Your task to perform on an android device: Add "alienware aurora" to the cart on bestbuy.com, then select checkout. Image 0: 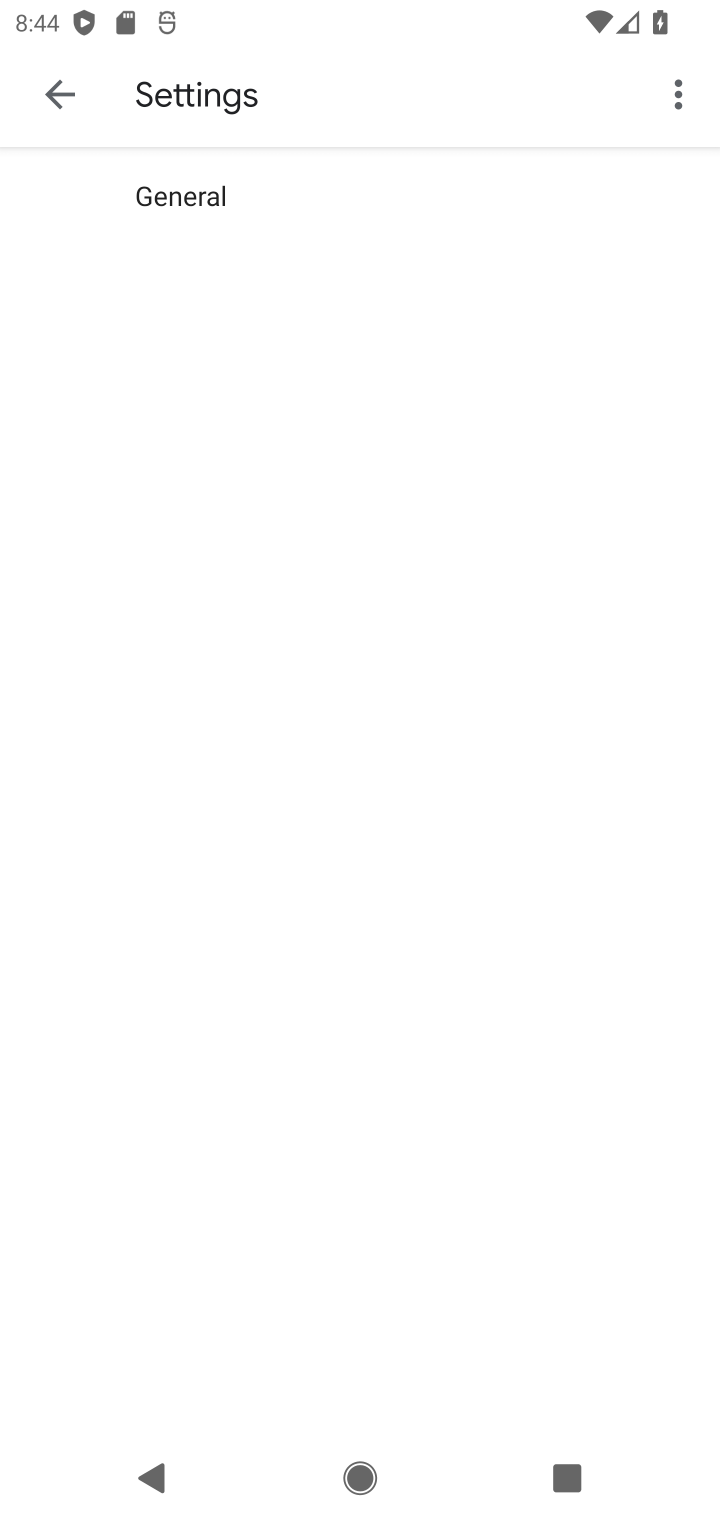
Step 0: press home button
Your task to perform on an android device: Add "alienware aurora" to the cart on bestbuy.com, then select checkout. Image 1: 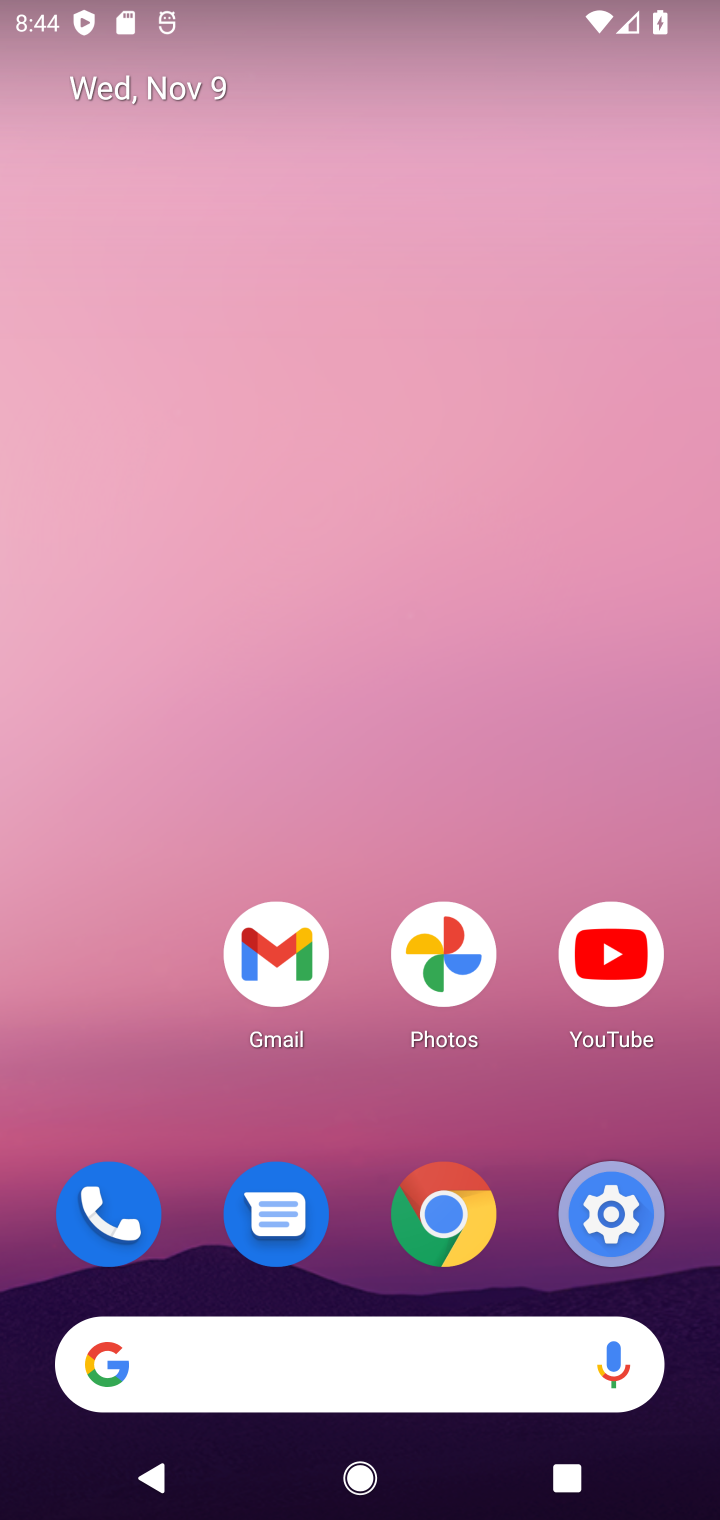
Step 1: drag from (365, 1018) to (445, 16)
Your task to perform on an android device: Add "alienware aurora" to the cart on bestbuy.com, then select checkout. Image 2: 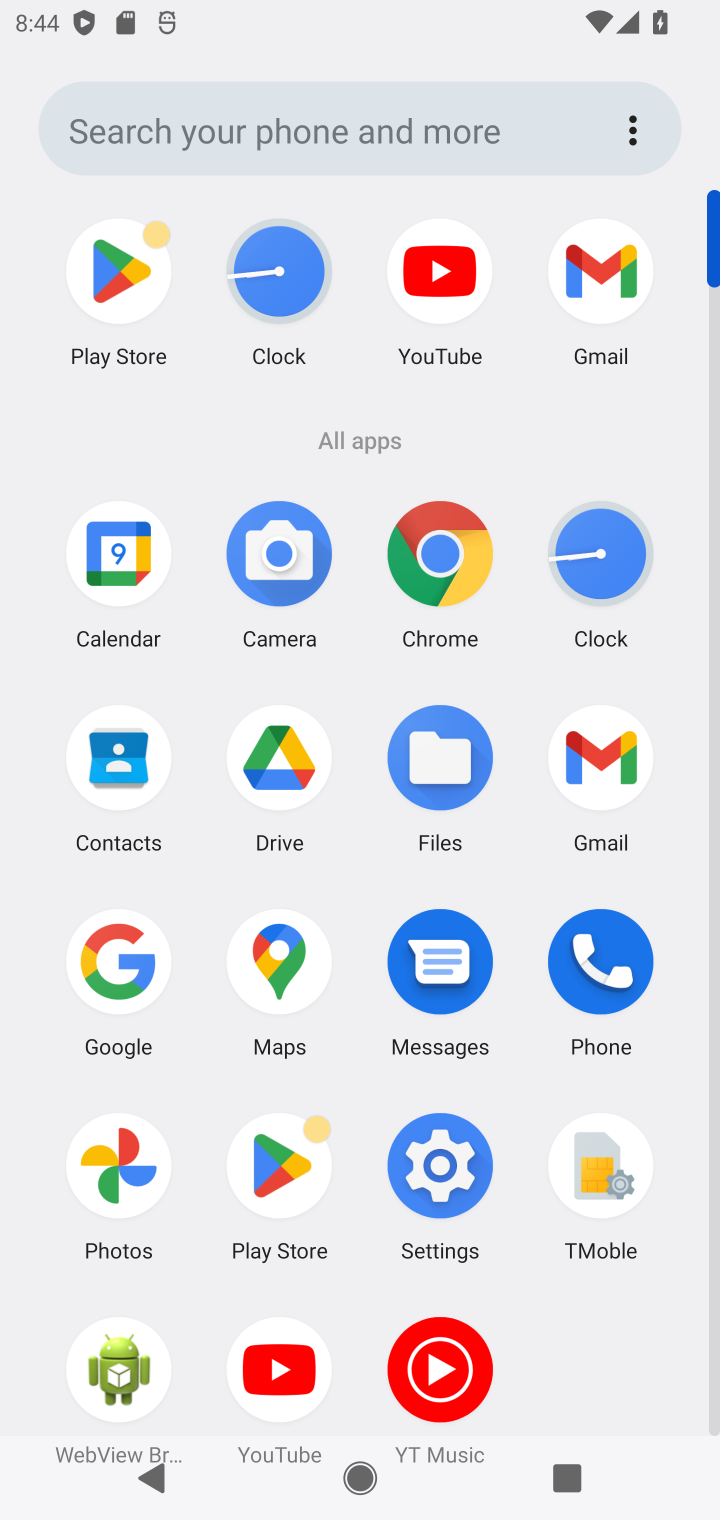
Step 2: click (443, 553)
Your task to perform on an android device: Add "alienware aurora" to the cart on bestbuy.com, then select checkout. Image 3: 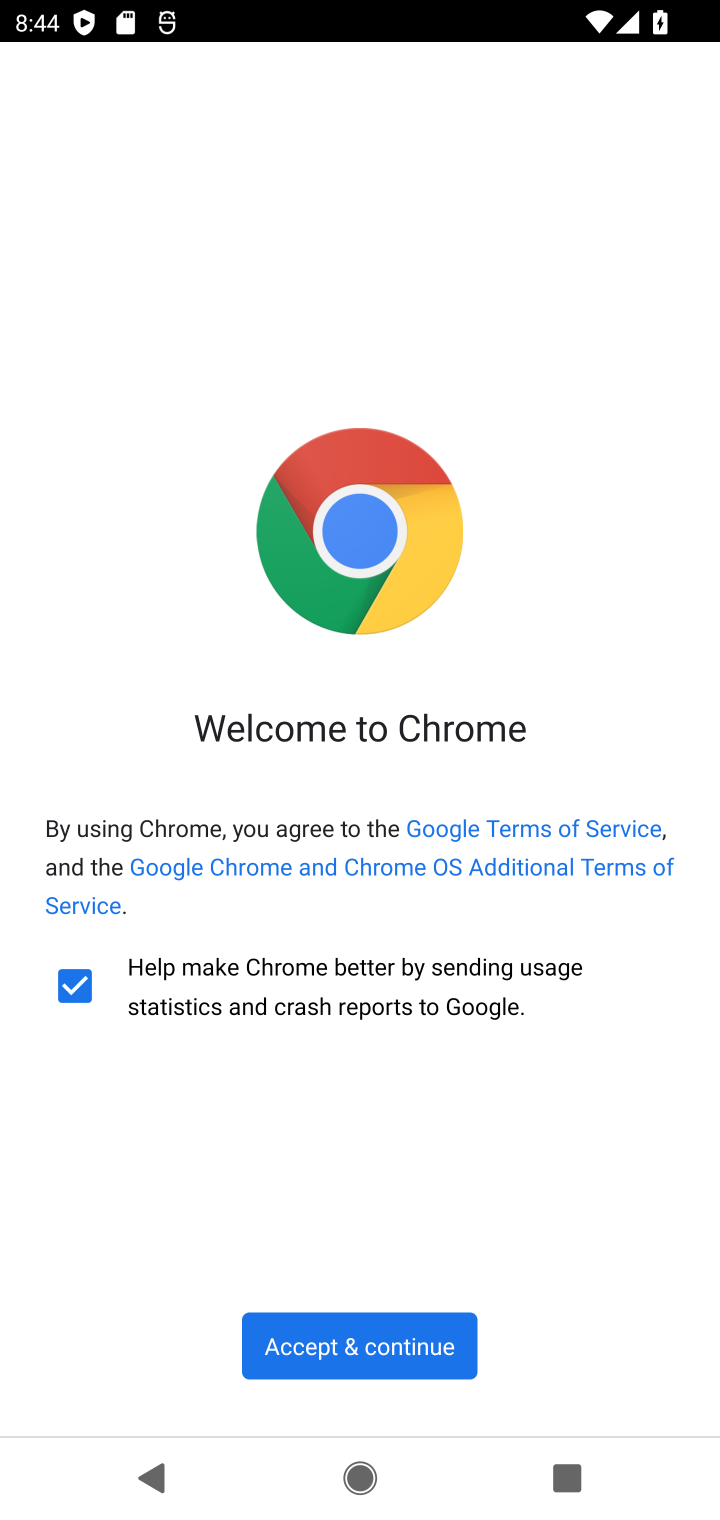
Step 3: click (367, 1368)
Your task to perform on an android device: Add "alienware aurora" to the cart on bestbuy.com, then select checkout. Image 4: 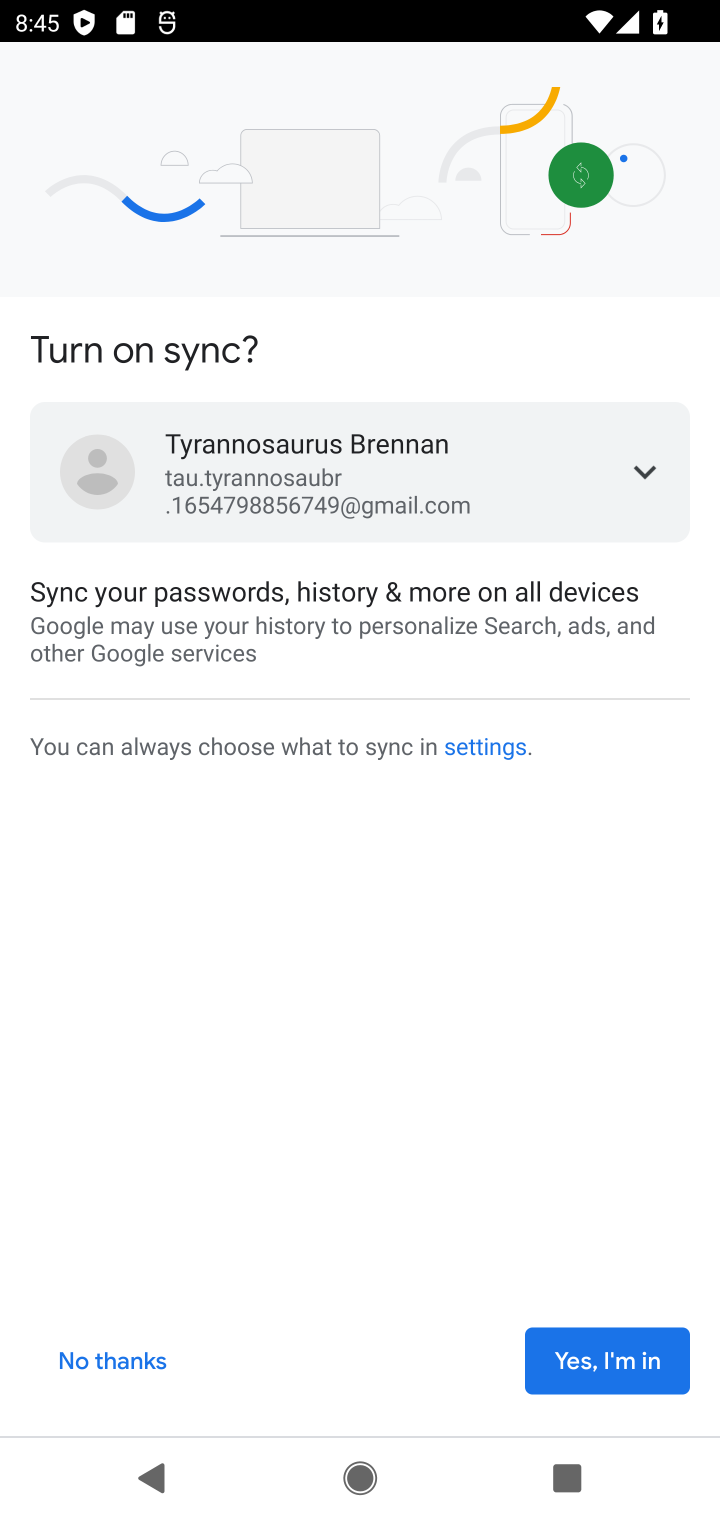
Step 4: click (580, 1391)
Your task to perform on an android device: Add "alienware aurora" to the cart on bestbuy.com, then select checkout. Image 5: 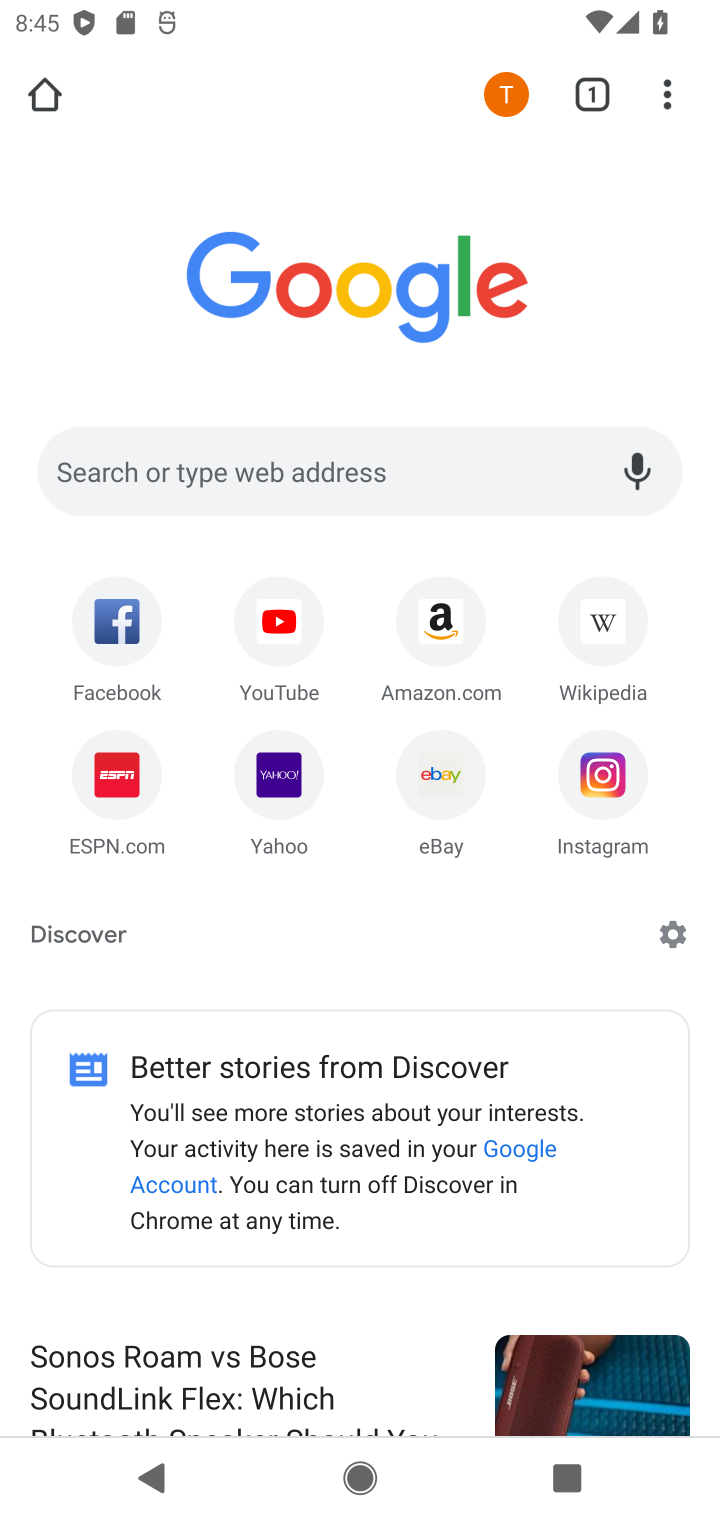
Step 5: click (344, 469)
Your task to perform on an android device: Add "alienware aurora" to the cart on bestbuy.com, then select checkout. Image 6: 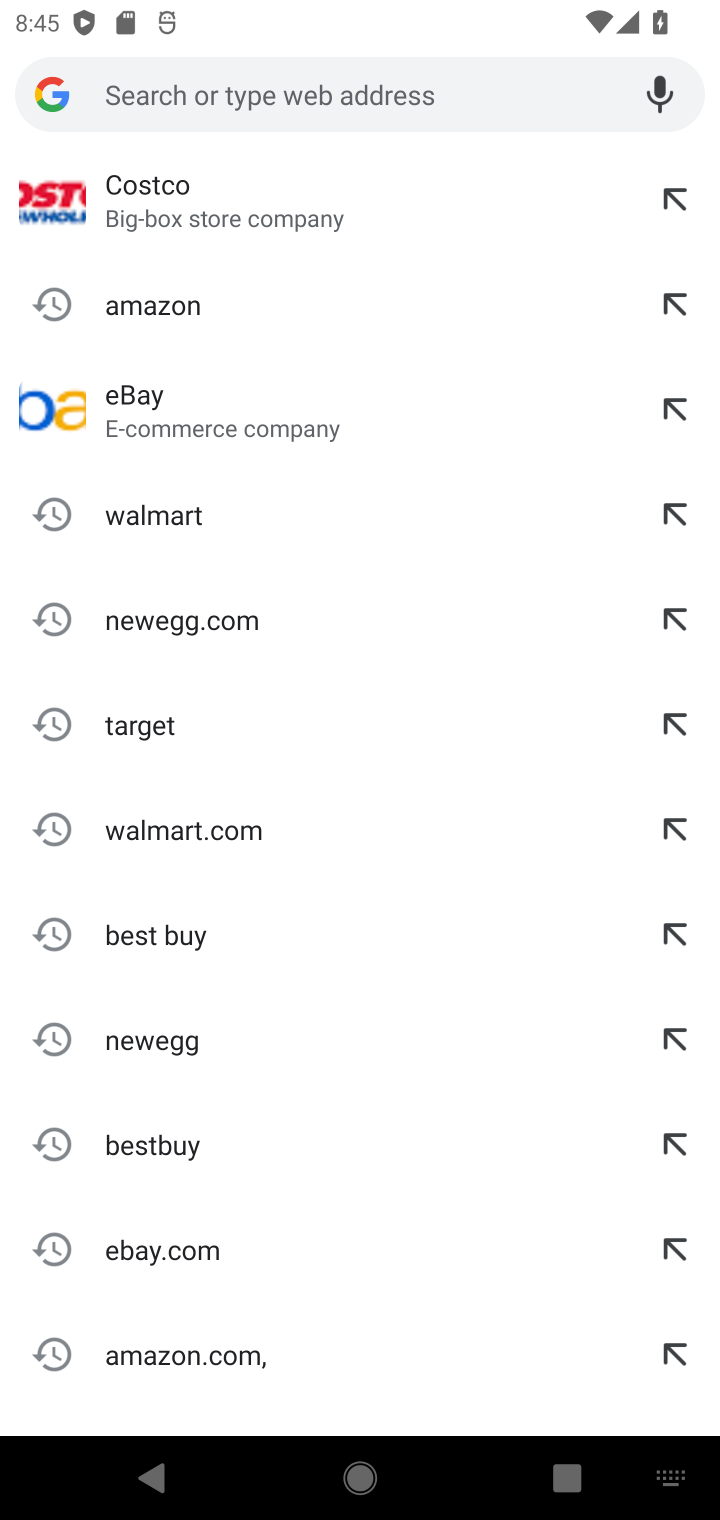
Step 6: type "alienware aurora"
Your task to perform on an android device: Add "alienware aurora" to the cart on bestbuy.com, then select checkout. Image 7: 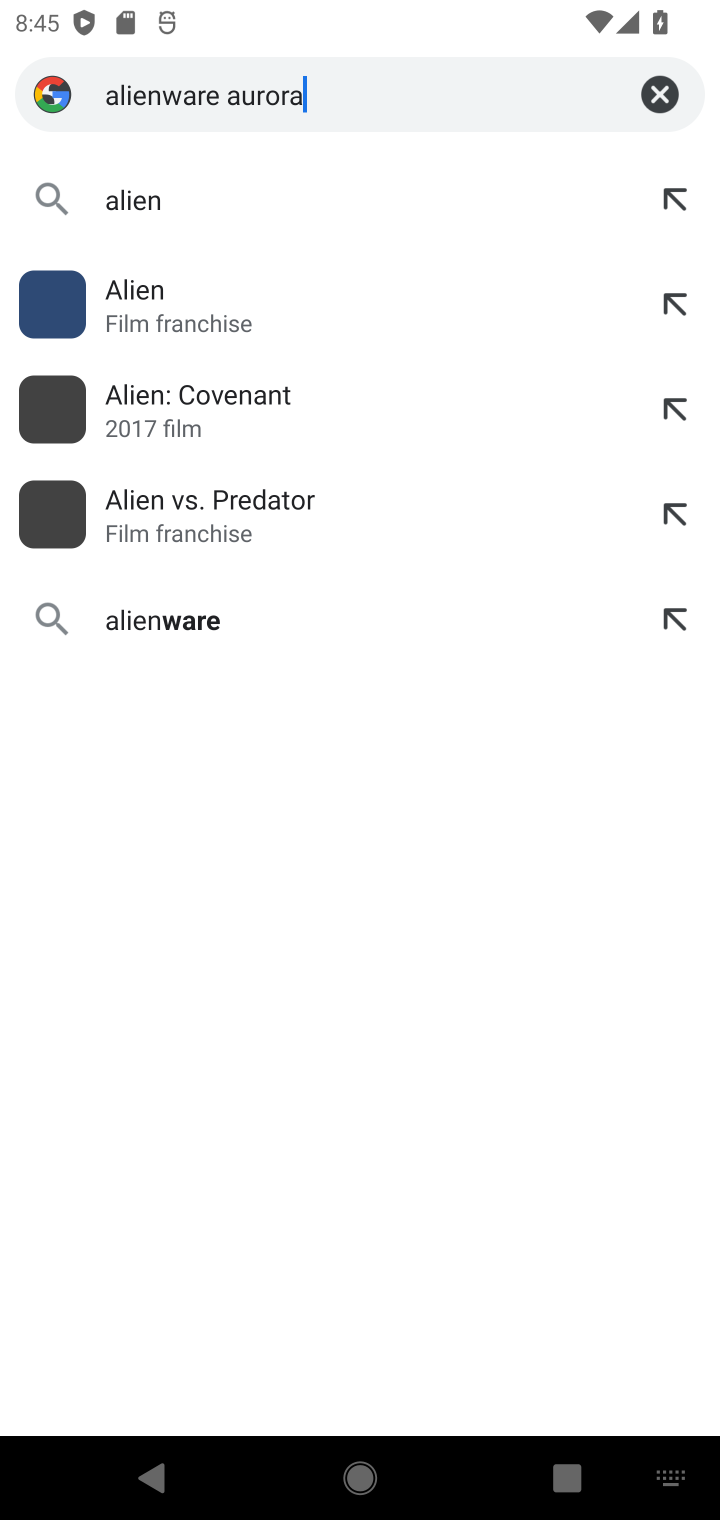
Step 7: press enter
Your task to perform on an android device: Add "alienware aurora" to the cart on bestbuy.com, then select checkout. Image 8: 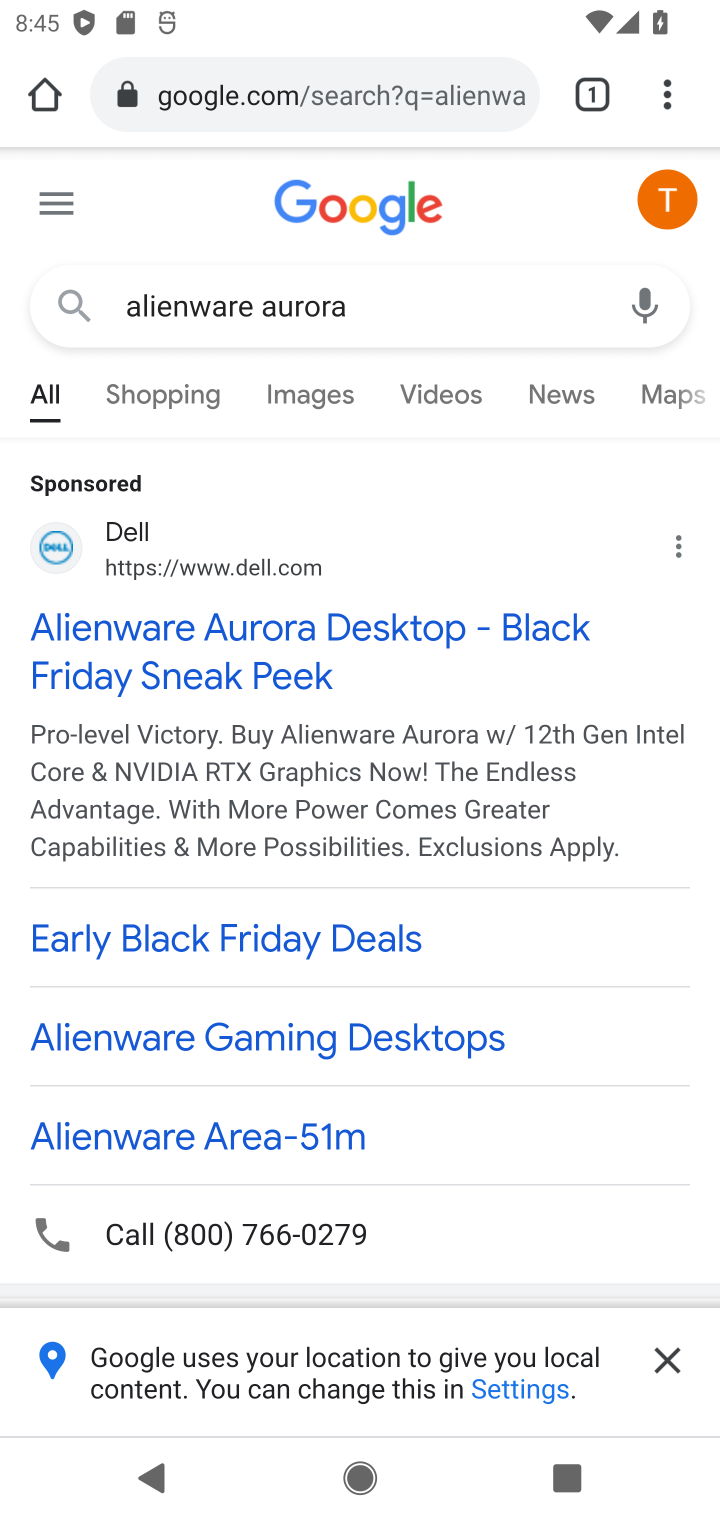
Step 8: drag from (497, 1000) to (454, 227)
Your task to perform on an android device: Add "alienware aurora" to the cart on bestbuy.com, then select checkout. Image 9: 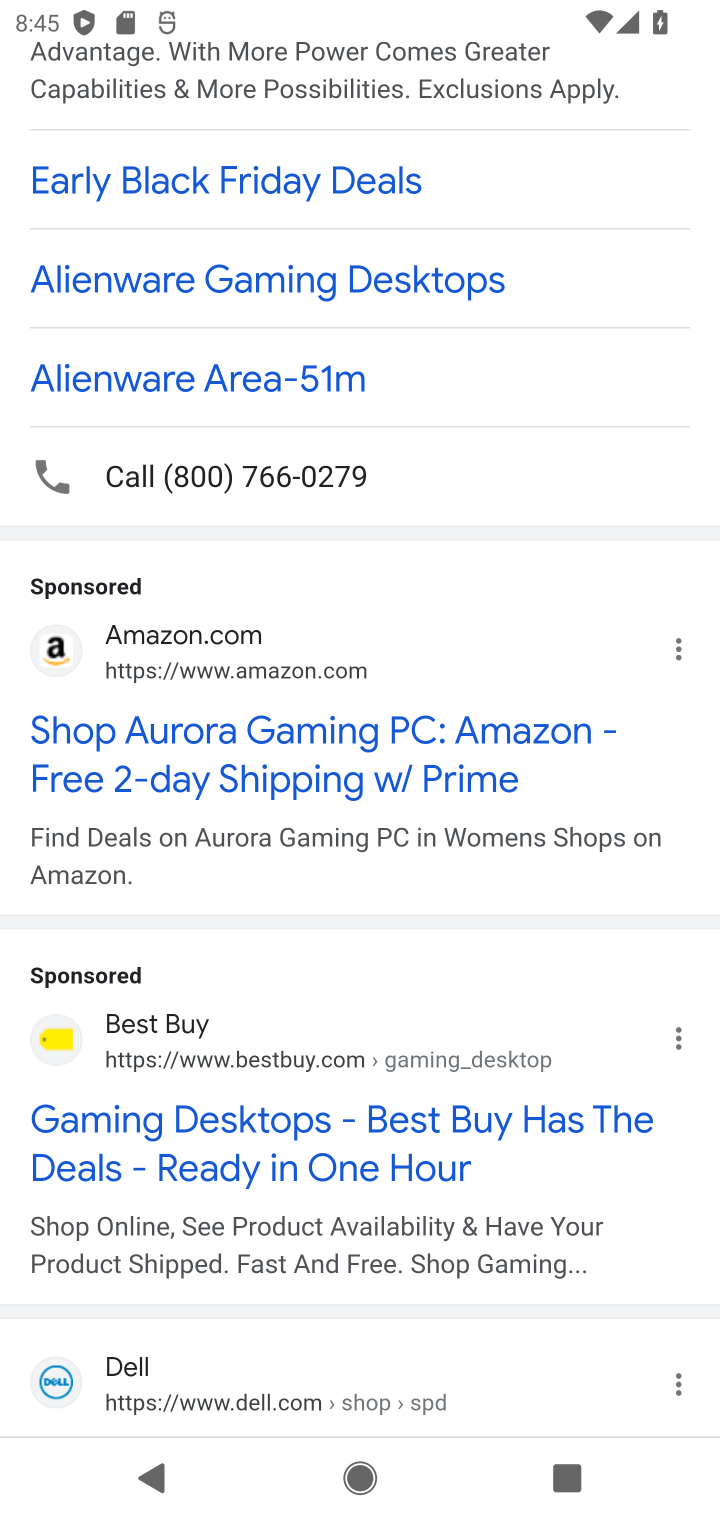
Step 9: drag from (468, 564) to (476, 1100)
Your task to perform on an android device: Add "alienware aurora" to the cart on bestbuy.com, then select checkout. Image 10: 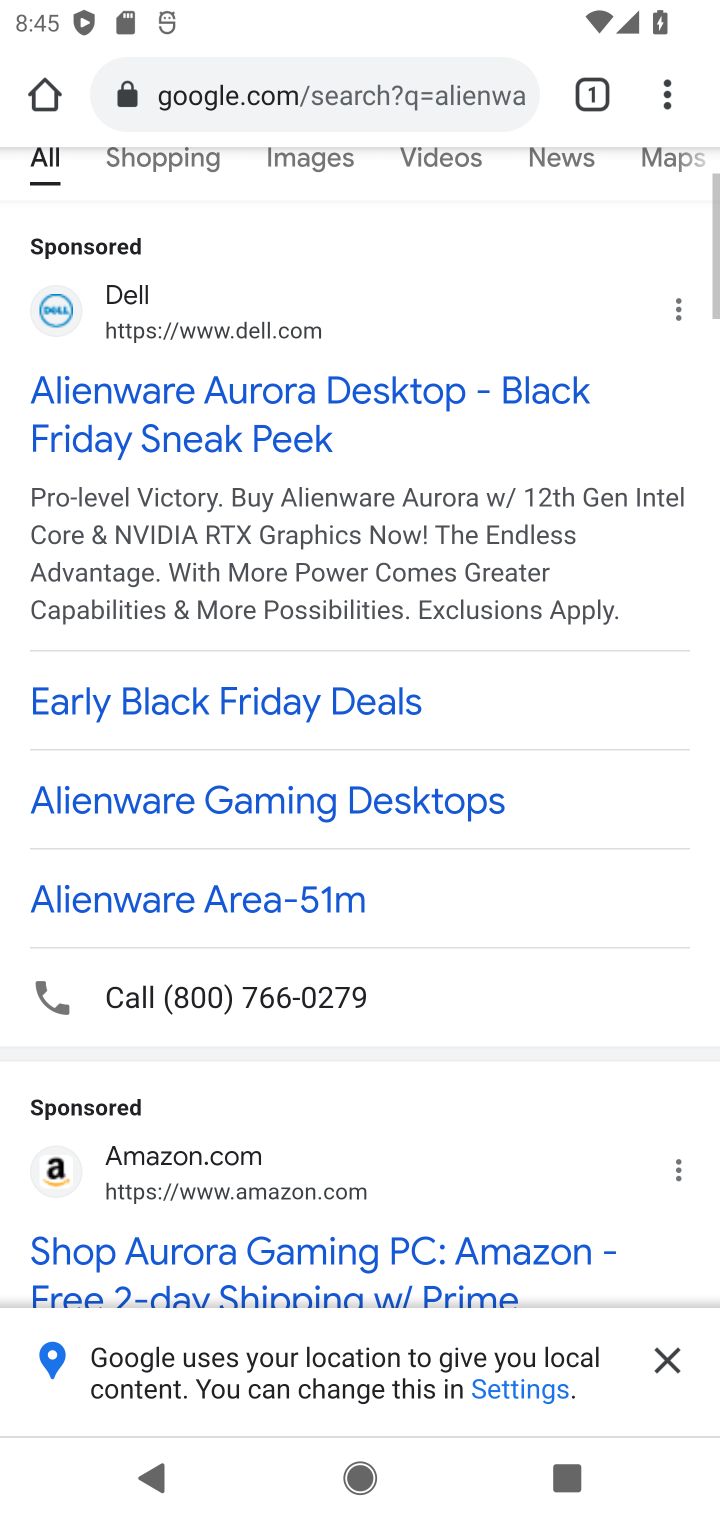
Step 10: click (392, 88)
Your task to perform on an android device: Add "alienware aurora" to the cart on bestbuy.com, then select checkout. Image 11: 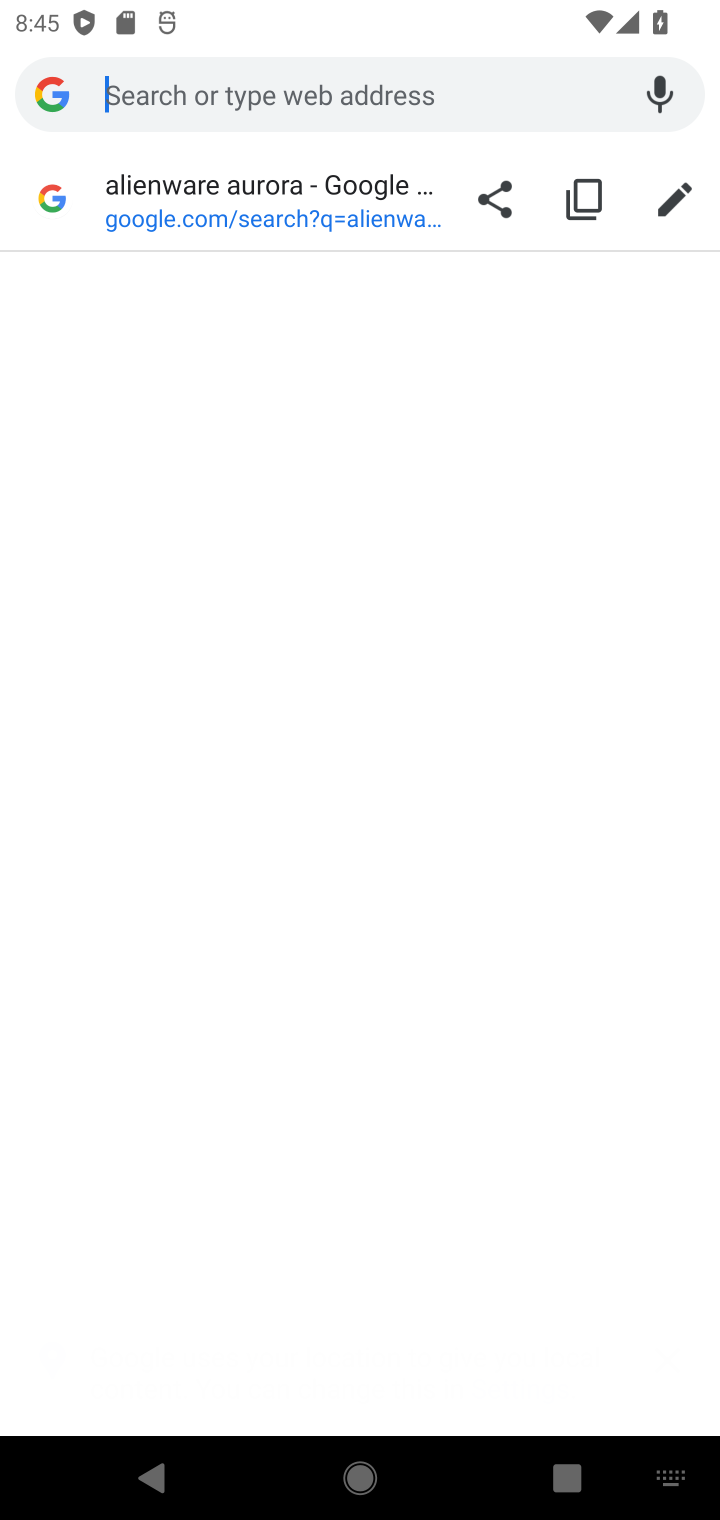
Step 11: type "bestbuy.com"
Your task to perform on an android device: Add "alienware aurora" to the cart on bestbuy.com, then select checkout. Image 12: 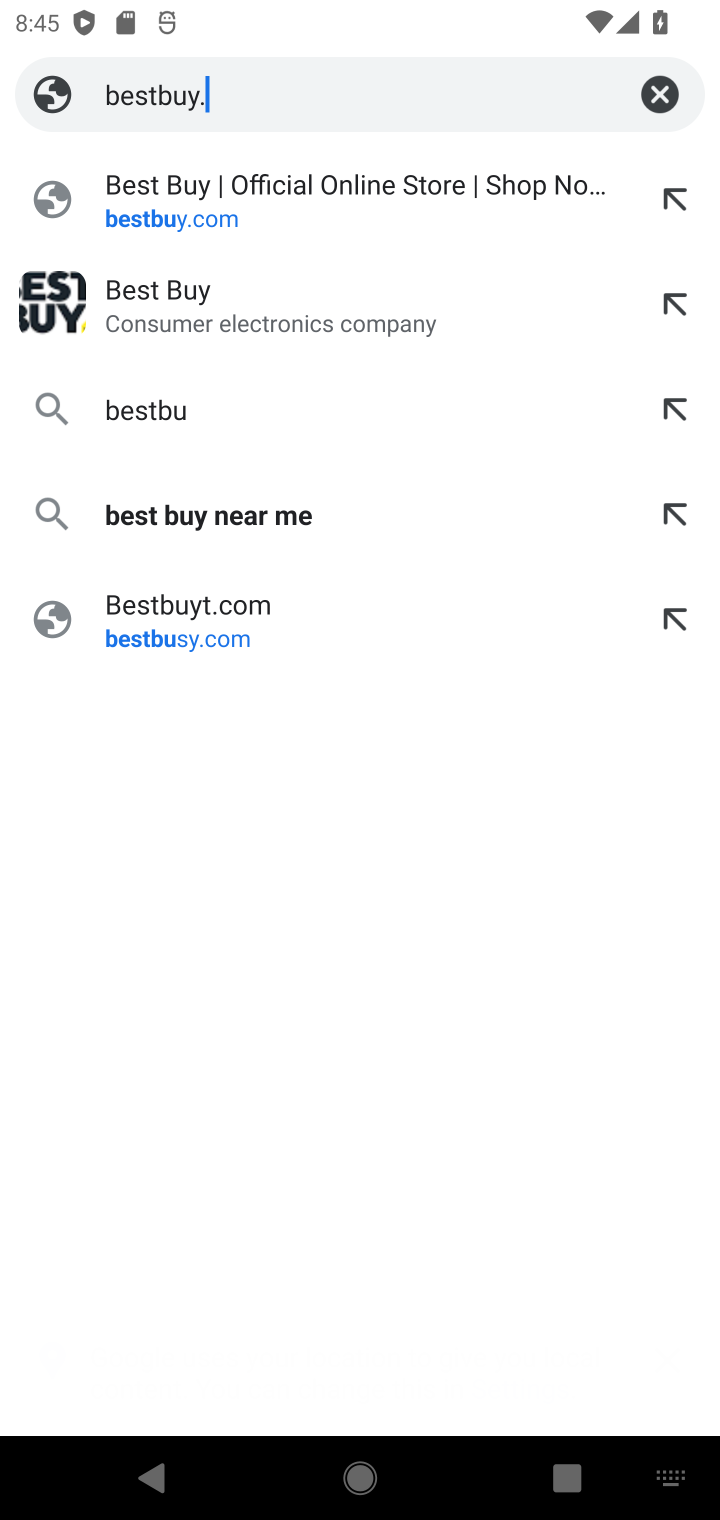
Step 12: press enter
Your task to perform on an android device: Add "alienware aurora" to the cart on bestbuy.com, then select checkout. Image 13: 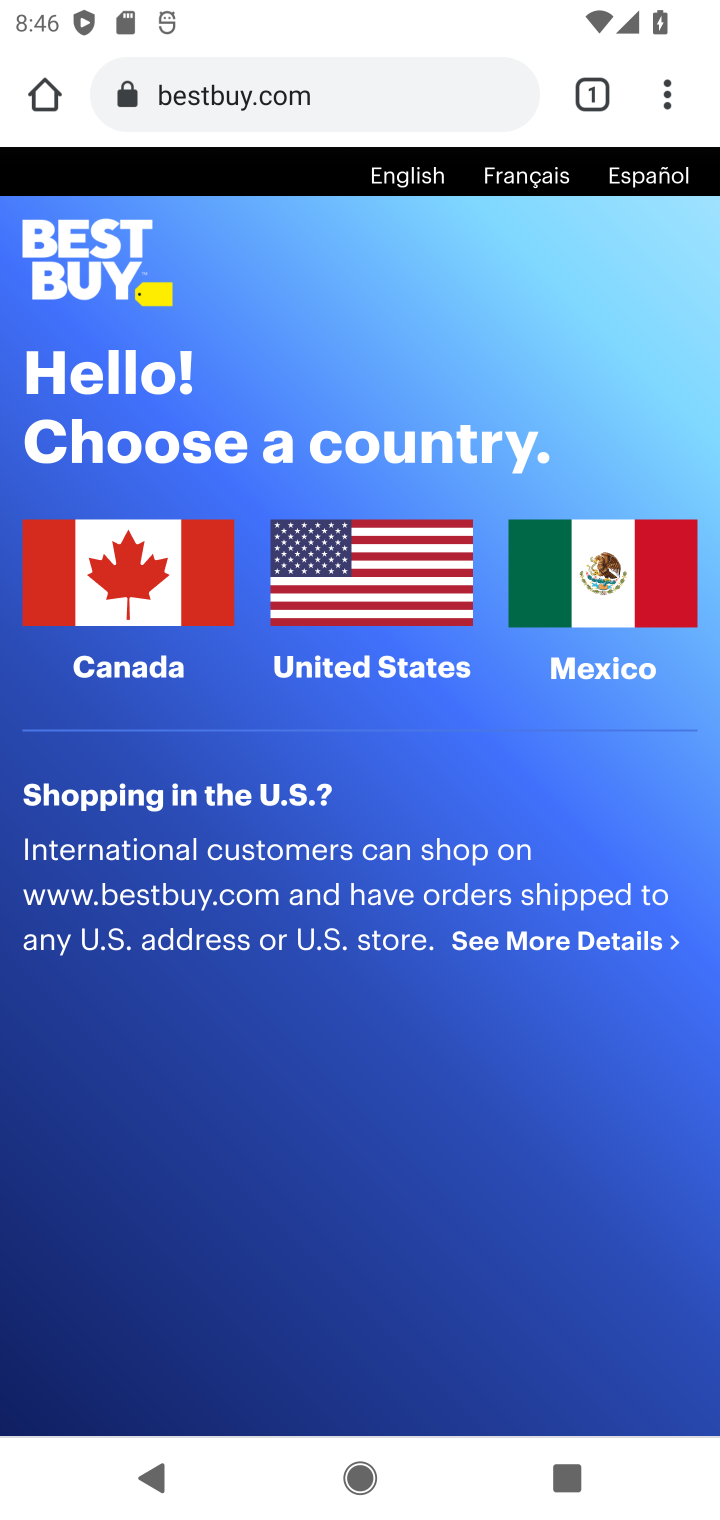
Step 13: click (166, 556)
Your task to perform on an android device: Add "alienware aurora" to the cart on bestbuy.com, then select checkout. Image 14: 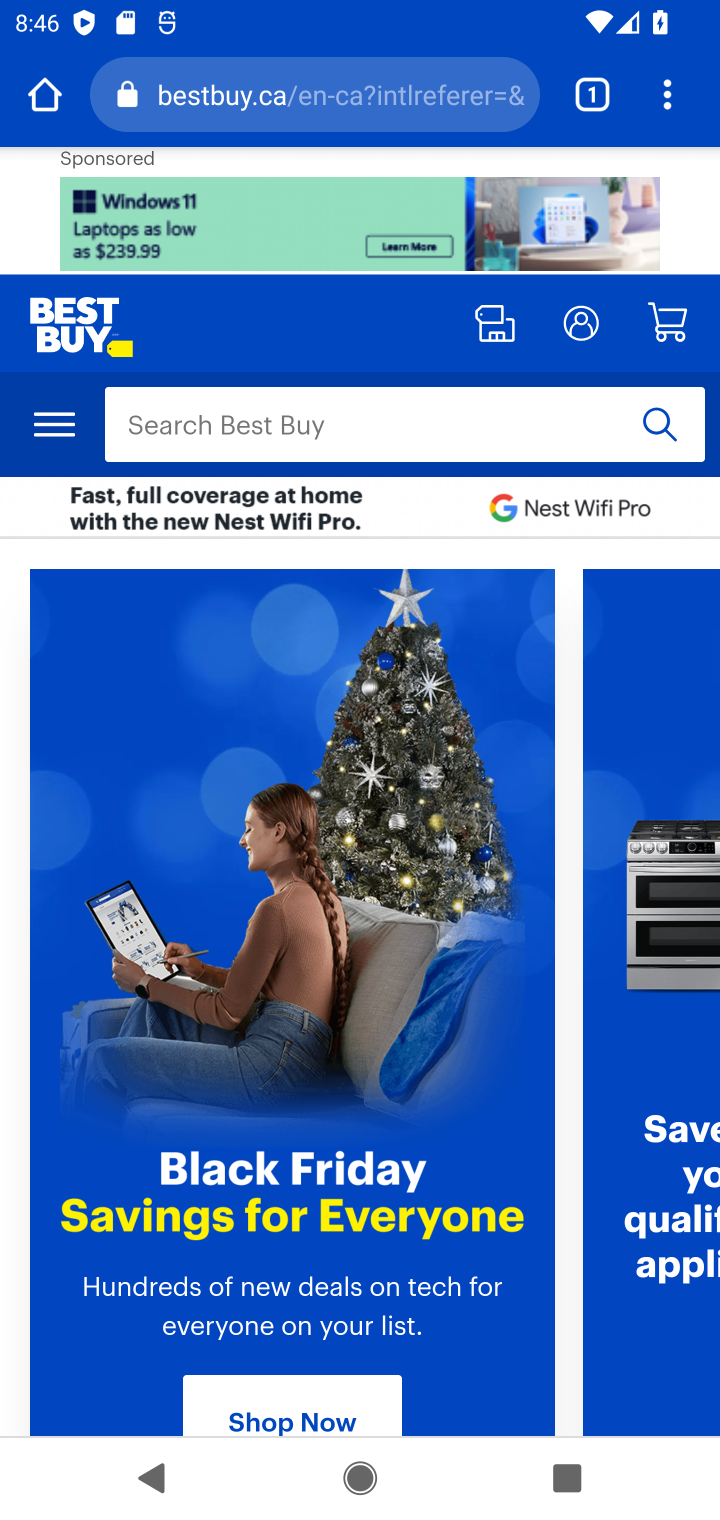
Step 14: click (541, 404)
Your task to perform on an android device: Add "alienware aurora" to the cart on bestbuy.com, then select checkout. Image 15: 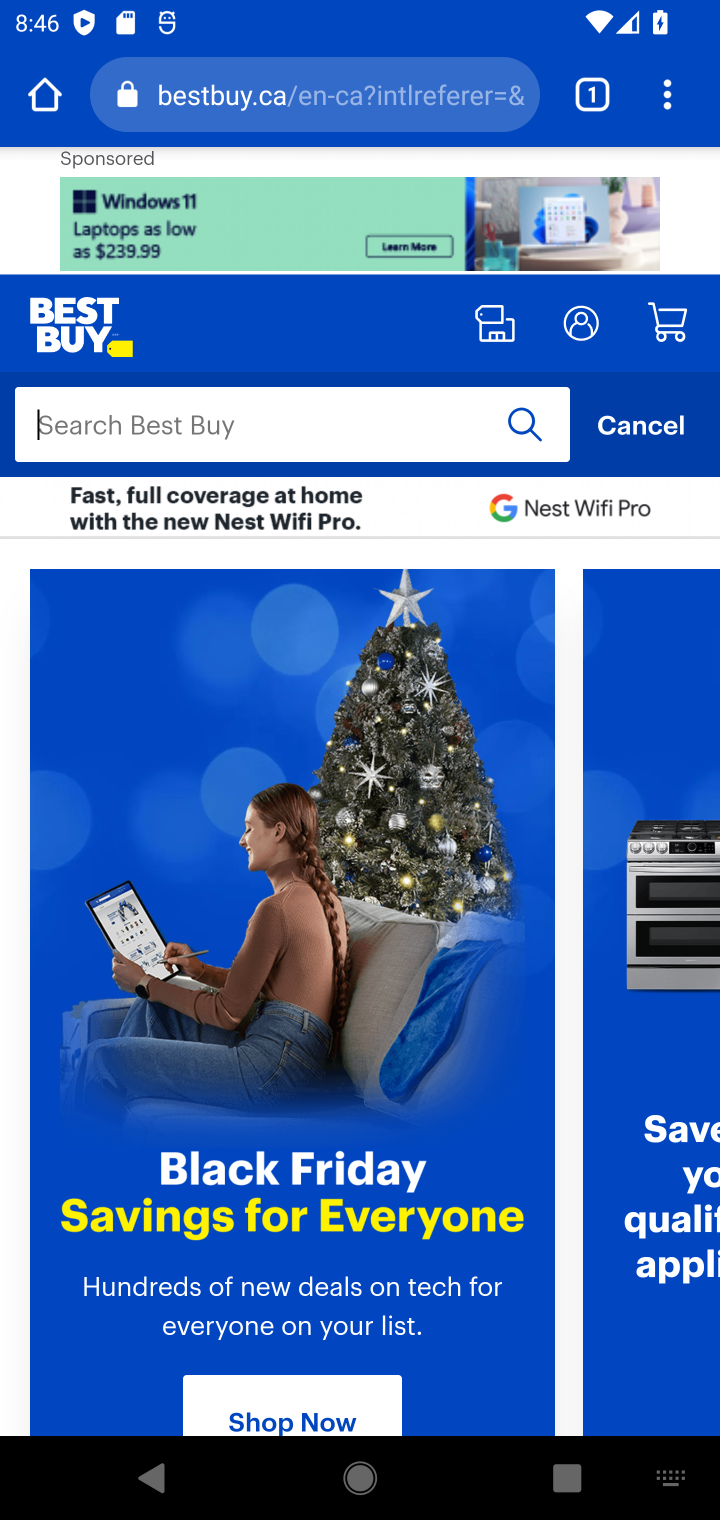
Step 15: type "alienware aurora"
Your task to perform on an android device: Add "alienware aurora" to the cart on bestbuy.com, then select checkout. Image 16: 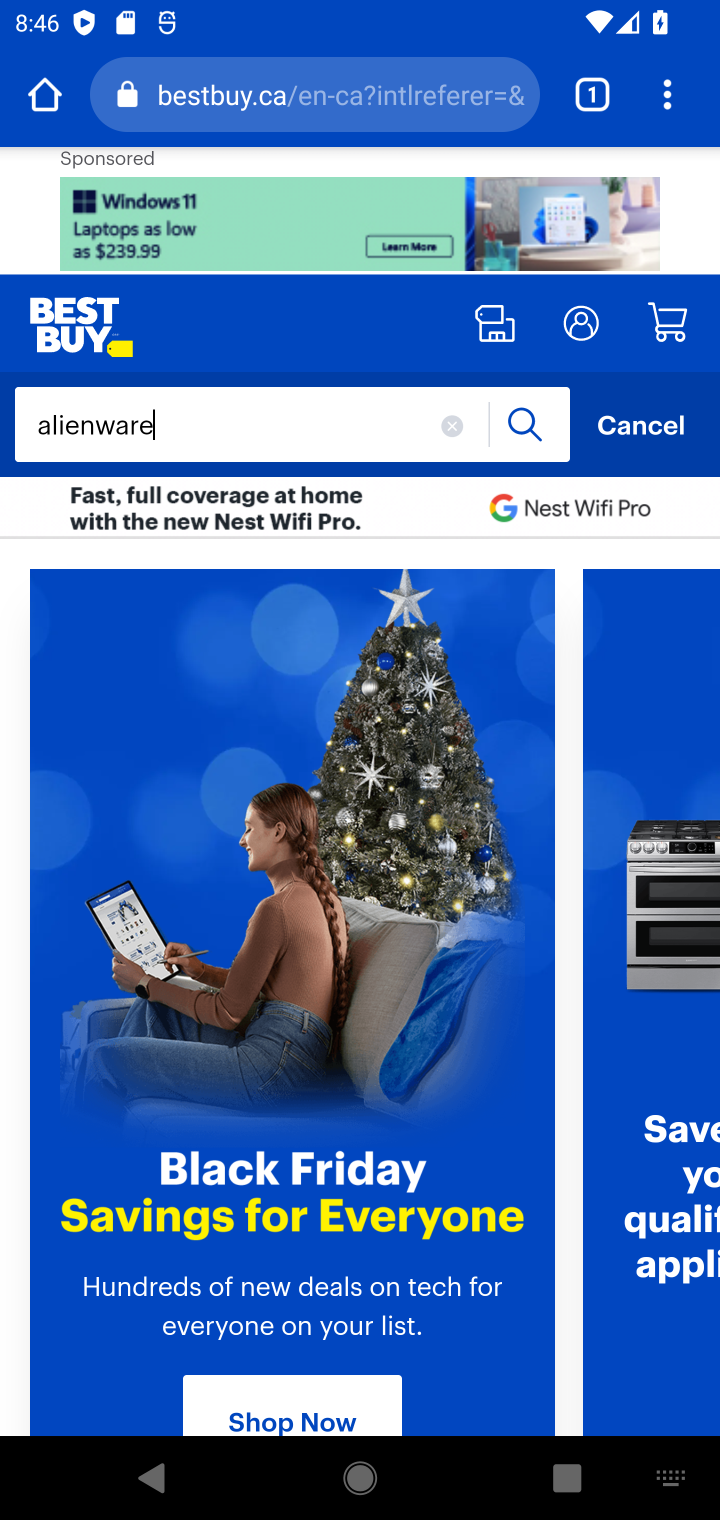
Step 16: press enter
Your task to perform on an android device: Add "alienware aurora" to the cart on bestbuy.com, then select checkout. Image 17: 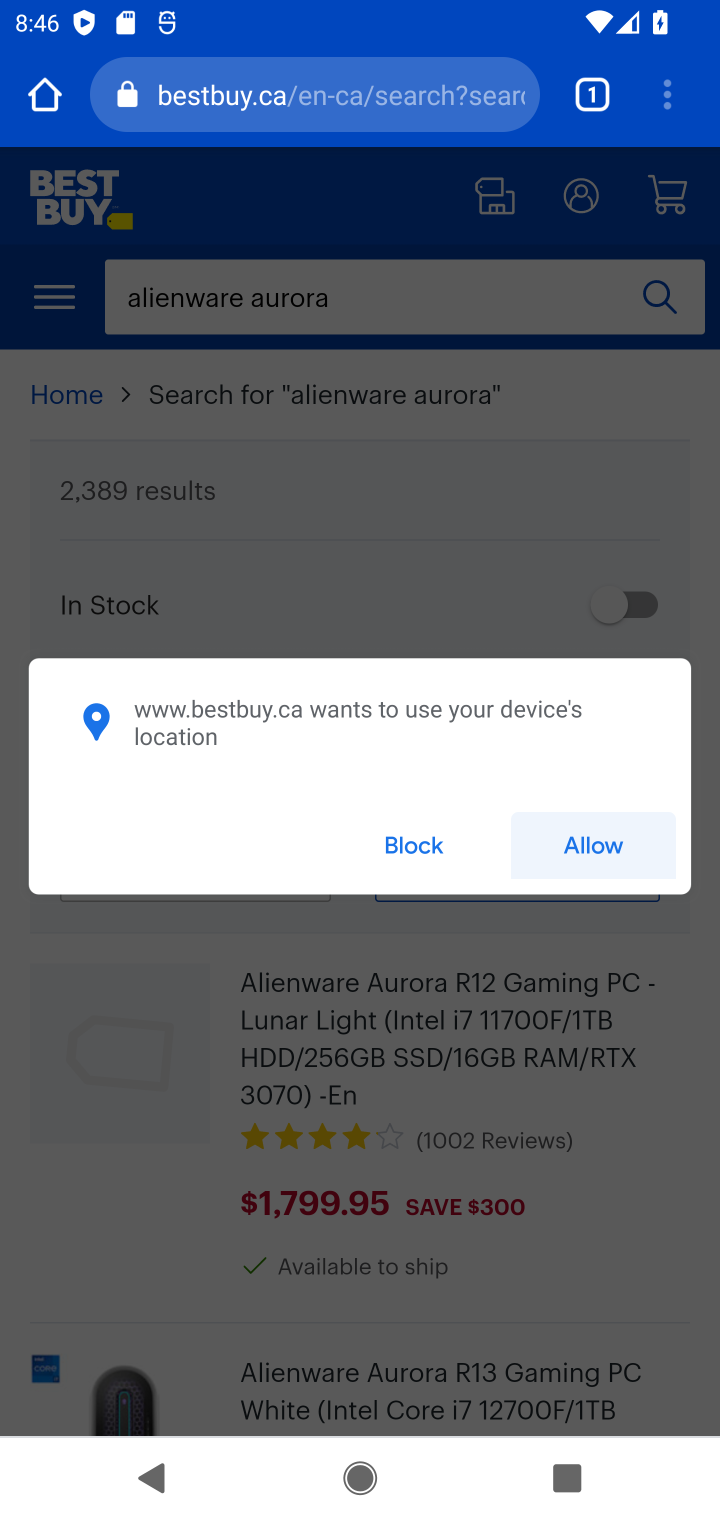
Step 17: click (423, 850)
Your task to perform on an android device: Add "alienware aurora" to the cart on bestbuy.com, then select checkout. Image 18: 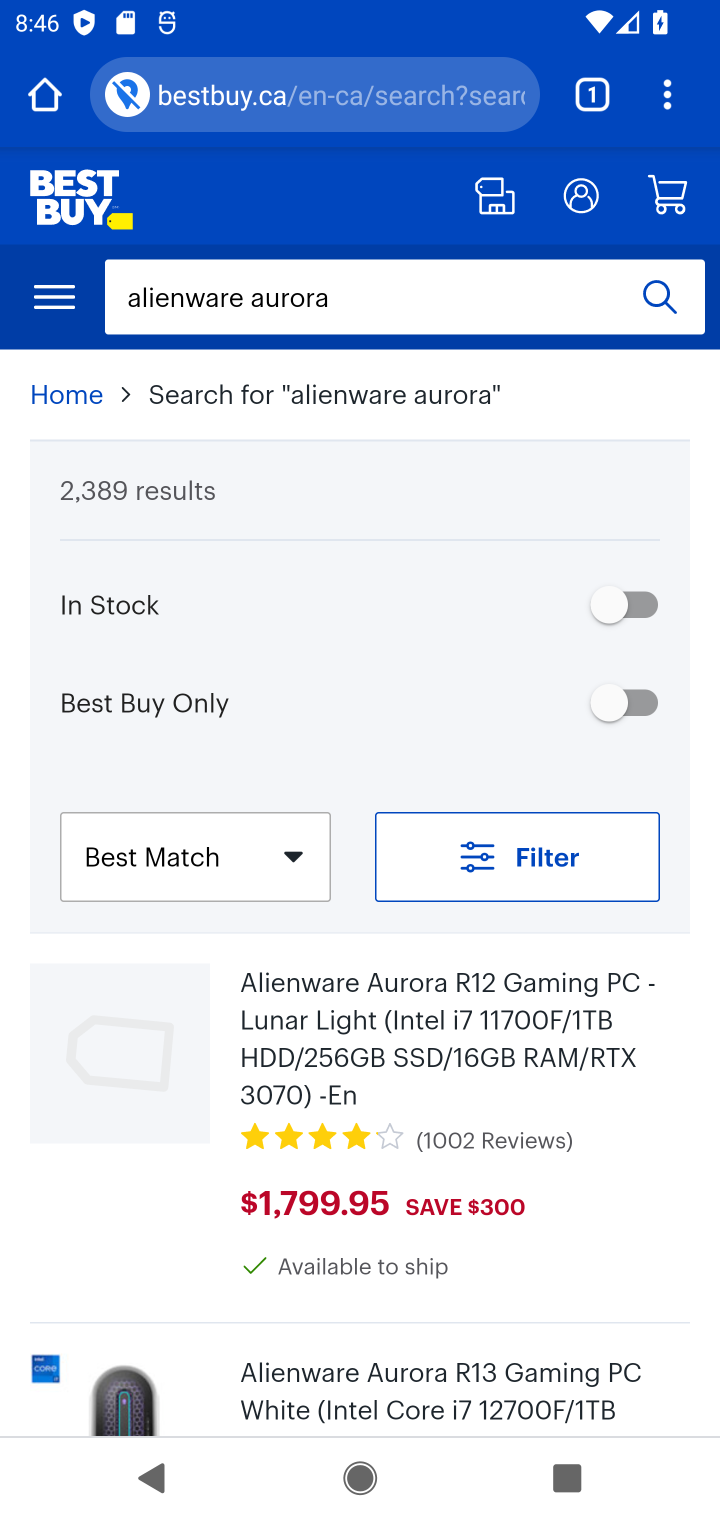
Step 18: drag from (456, 958) to (478, 612)
Your task to perform on an android device: Add "alienware aurora" to the cart on bestbuy.com, then select checkout. Image 19: 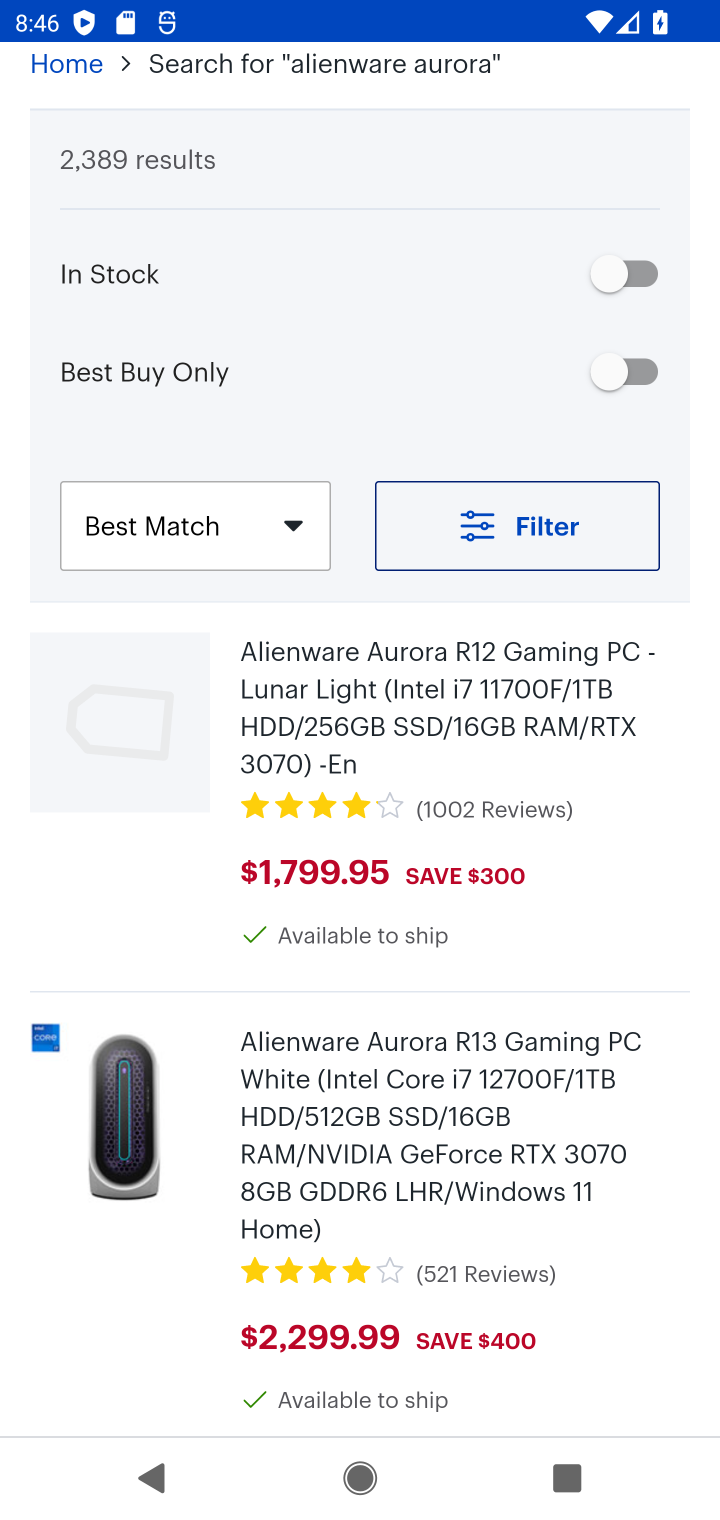
Step 19: click (388, 671)
Your task to perform on an android device: Add "alienware aurora" to the cart on bestbuy.com, then select checkout. Image 20: 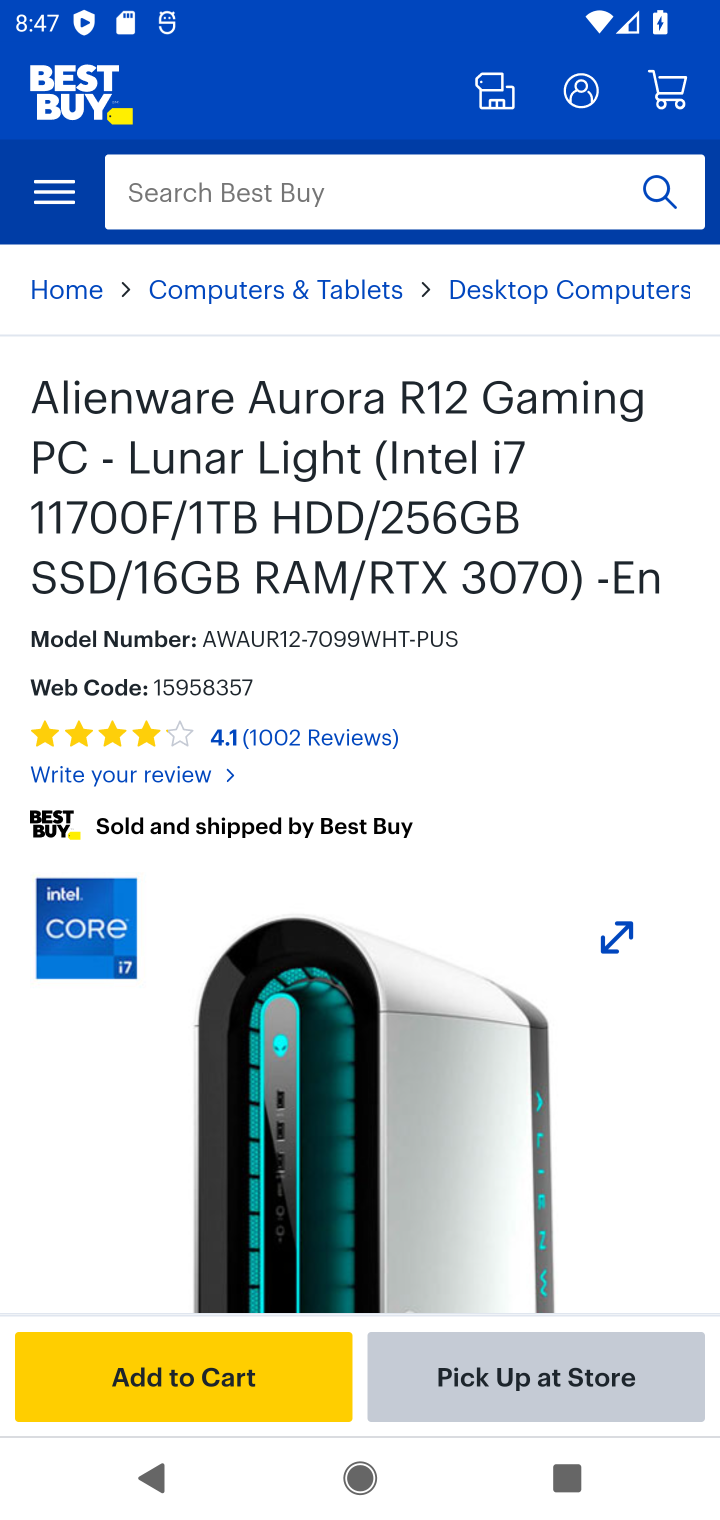
Step 20: click (257, 1384)
Your task to perform on an android device: Add "alienware aurora" to the cart on bestbuy.com, then select checkout. Image 21: 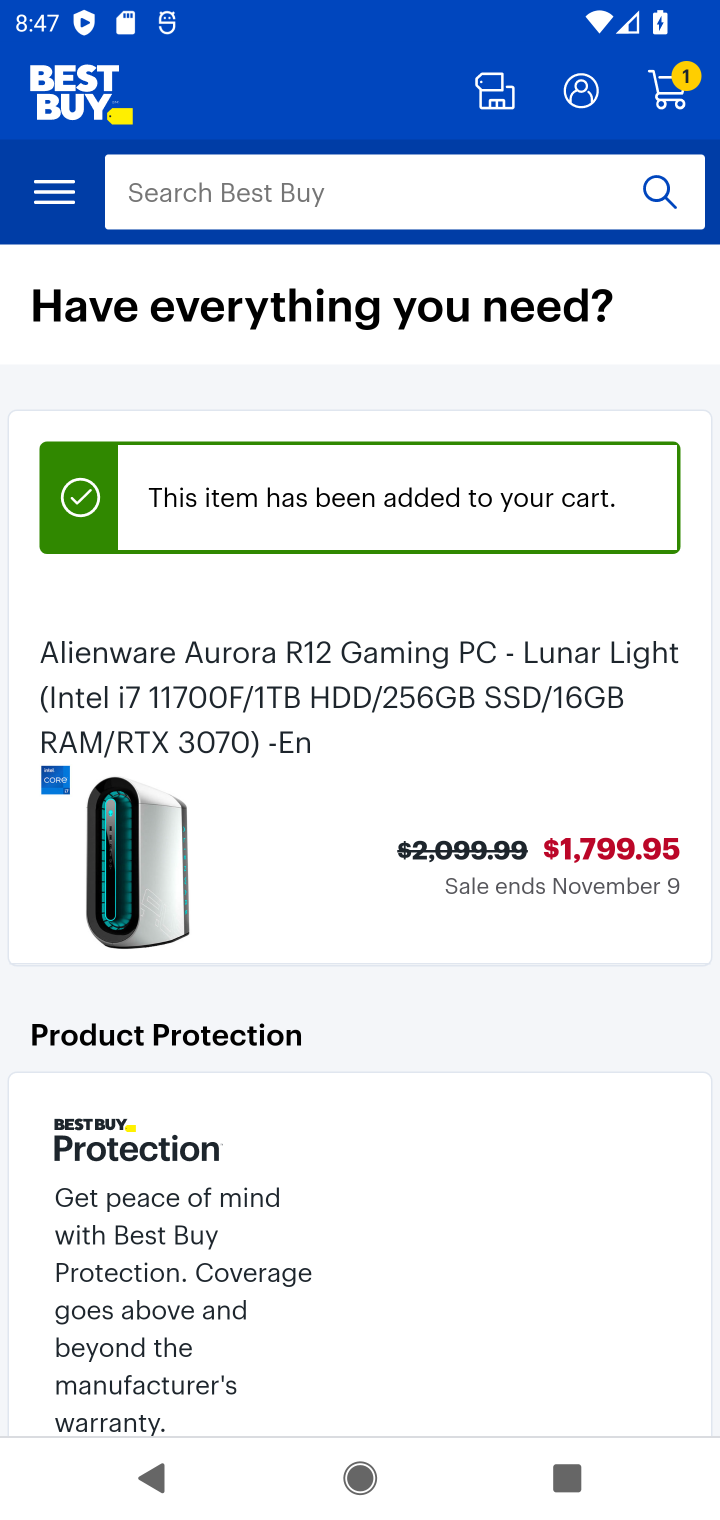
Step 21: click (698, 99)
Your task to perform on an android device: Add "alienware aurora" to the cart on bestbuy.com, then select checkout. Image 22: 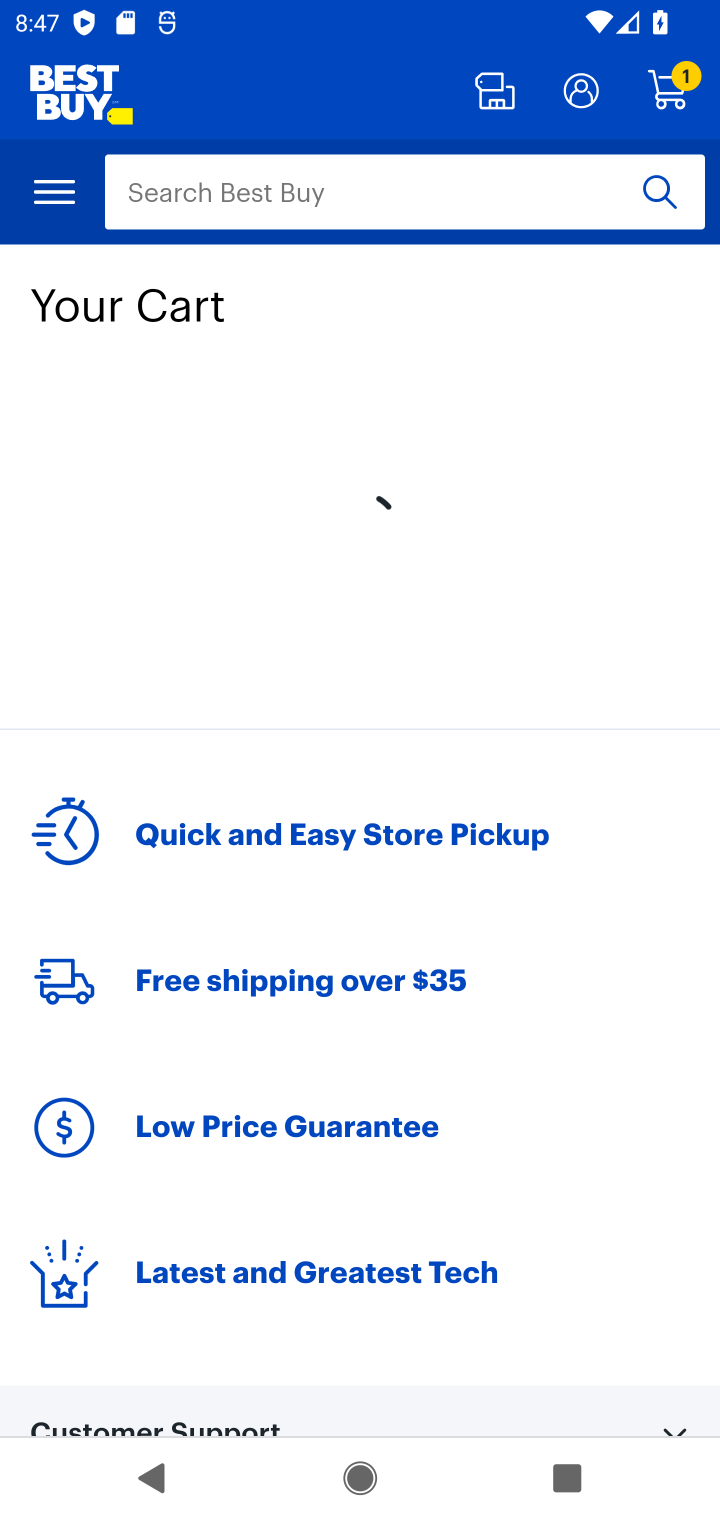
Step 22: click (679, 93)
Your task to perform on an android device: Add "alienware aurora" to the cart on bestbuy.com, then select checkout. Image 23: 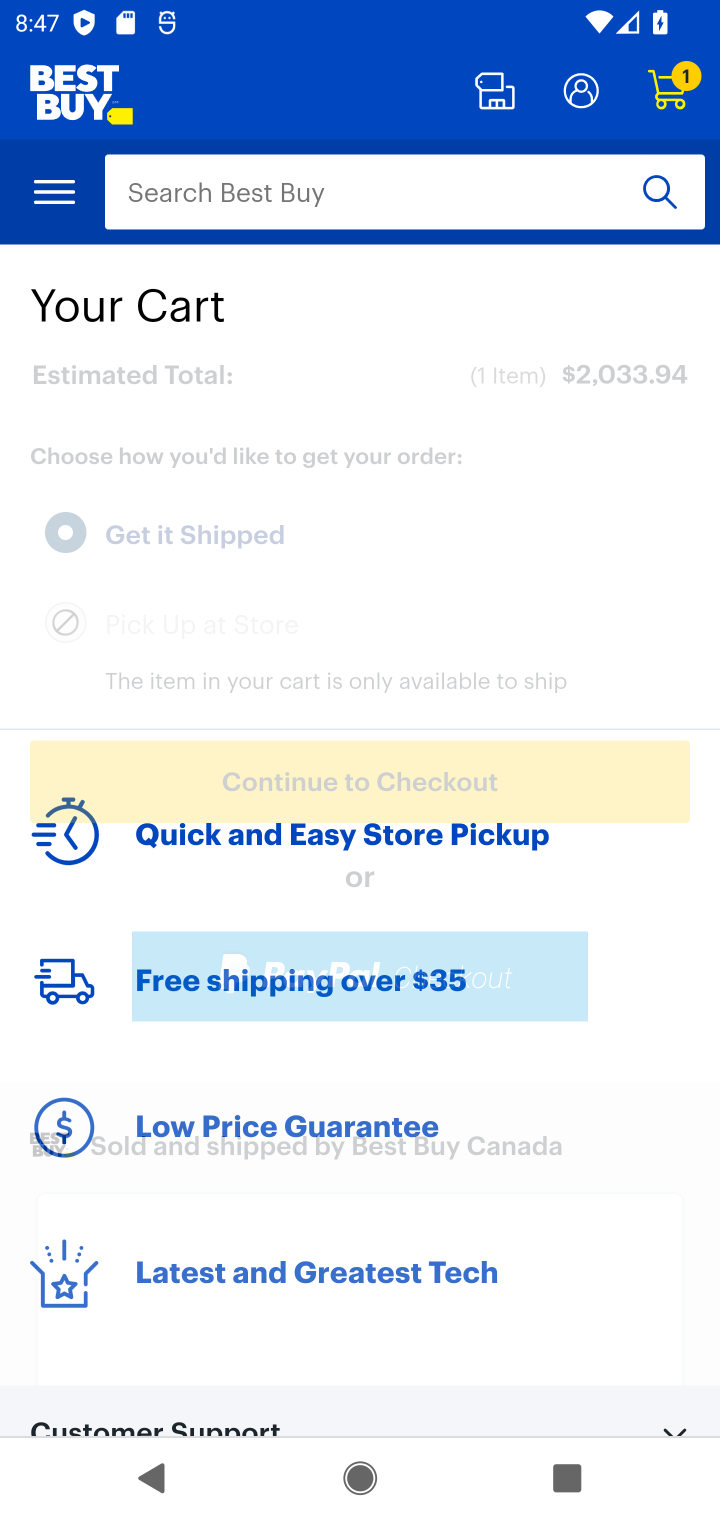
Step 23: click (675, 81)
Your task to perform on an android device: Add "alienware aurora" to the cart on bestbuy.com, then select checkout. Image 24: 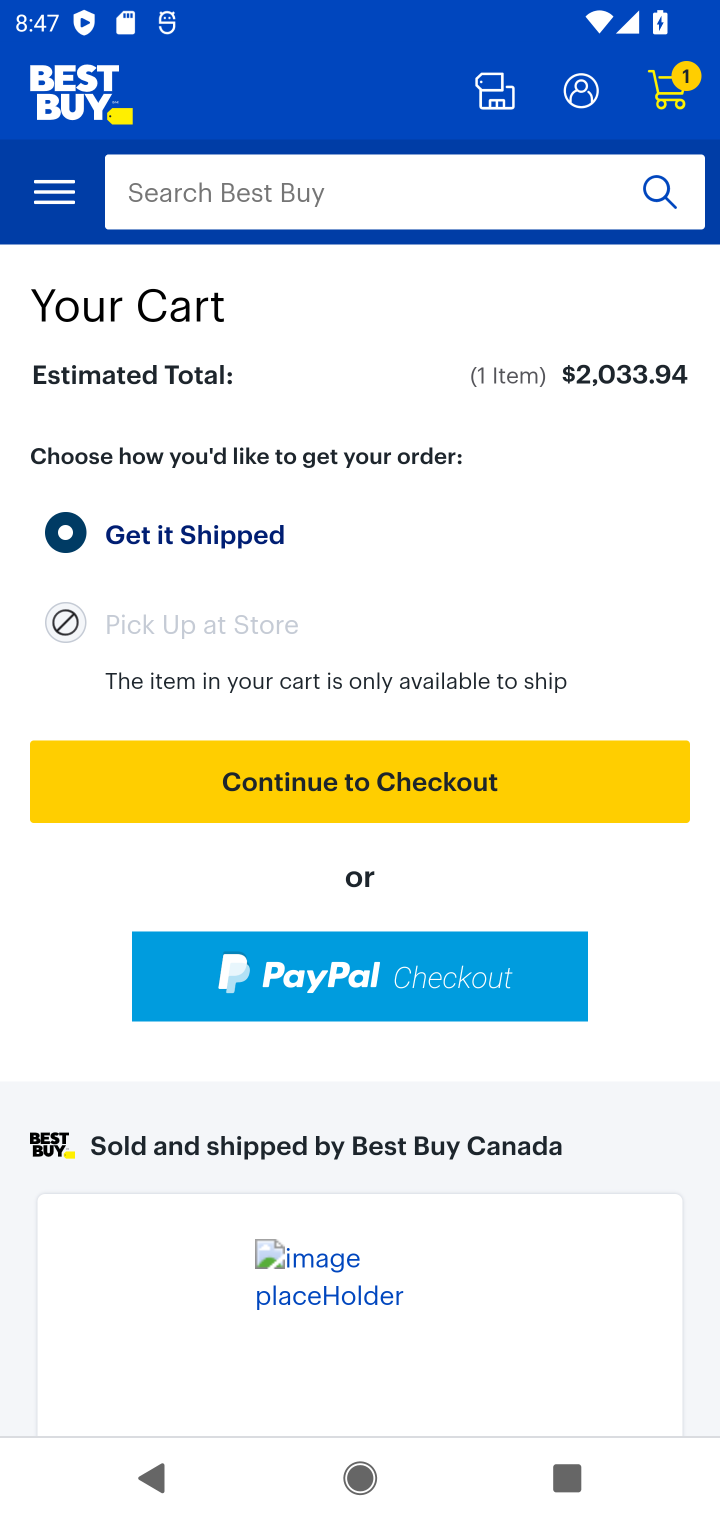
Step 24: click (437, 798)
Your task to perform on an android device: Add "alienware aurora" to the cart on bestbuy.com, then select checkout. Image 25: 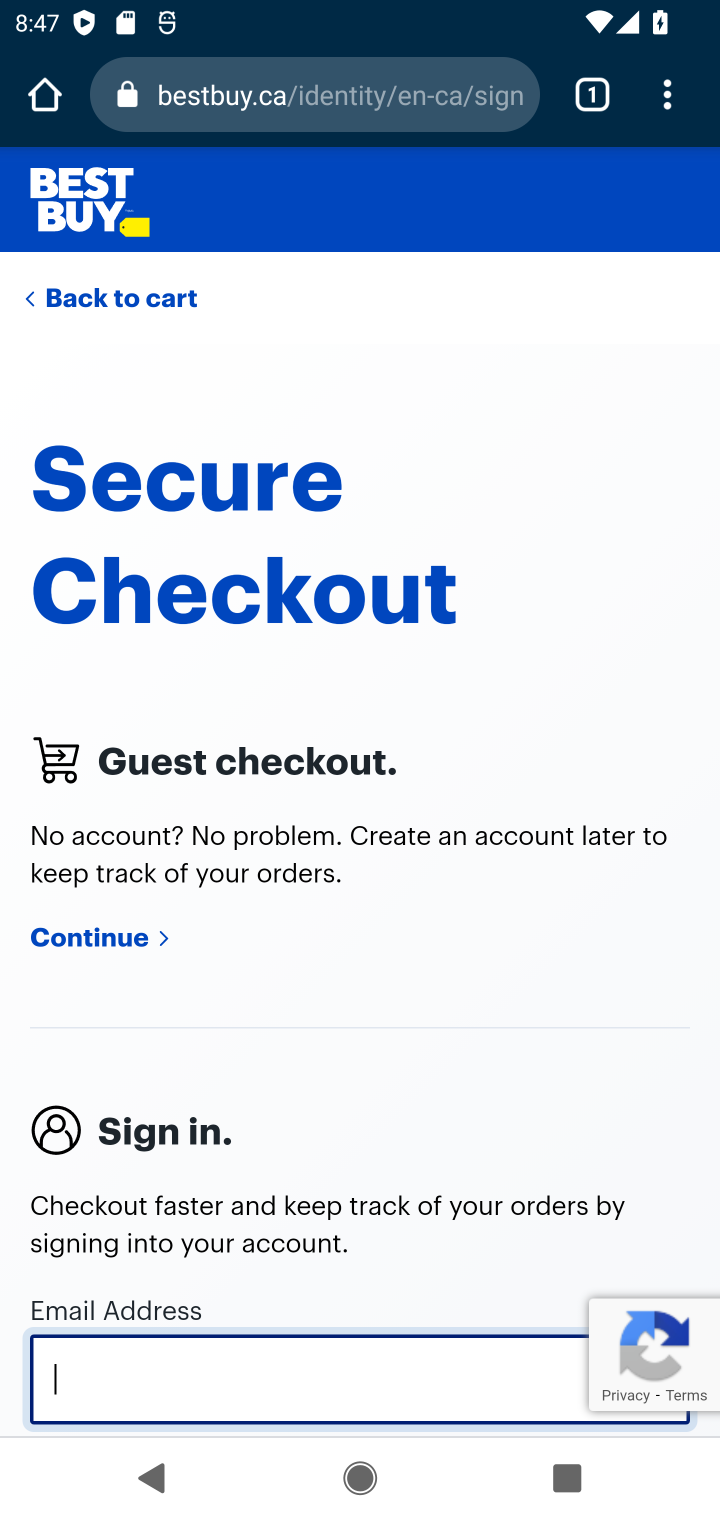
Step 25: task complete